Your task to perform on an android device: toggle notifications settings in the gmail app Image 0: 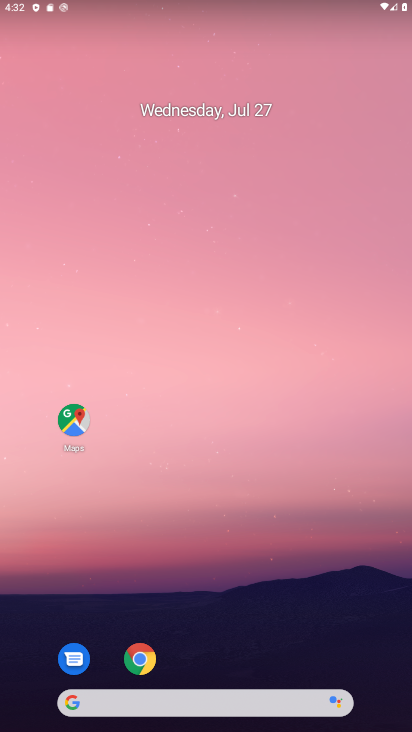
Step 0: press home button
Your task to perform on an android device: toggle notifications settings in the gmail app Image 1: 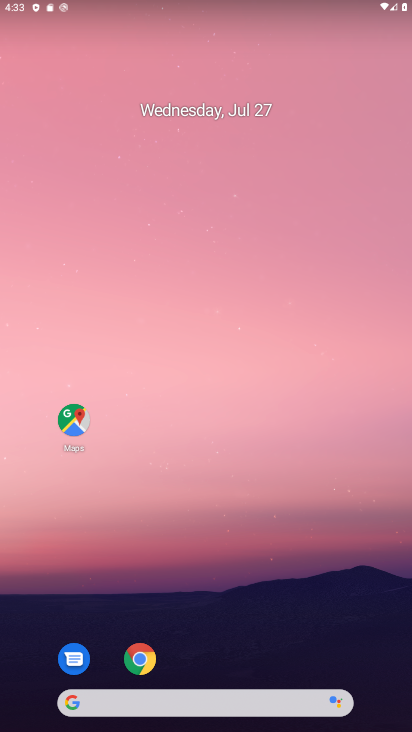
Step 1: drag from (295, 598) to (306, 151)
Your task to perform on an android device: toggle notifications settings in the gmail app Image 2: 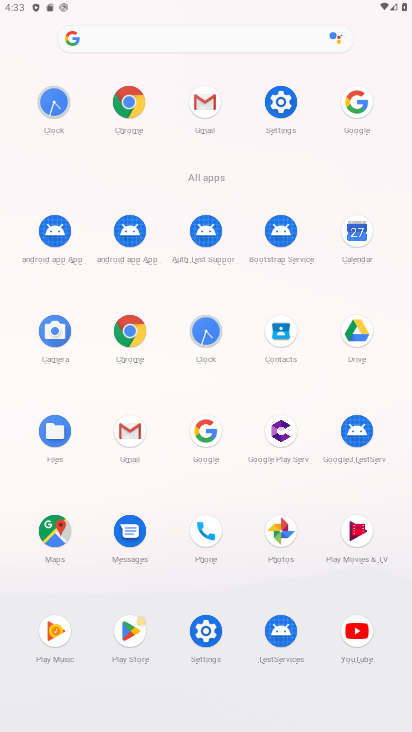
Step 2: click (121, 431)
Your task to perform on an android device: toggle notifications settings in the gmail app Image 3: 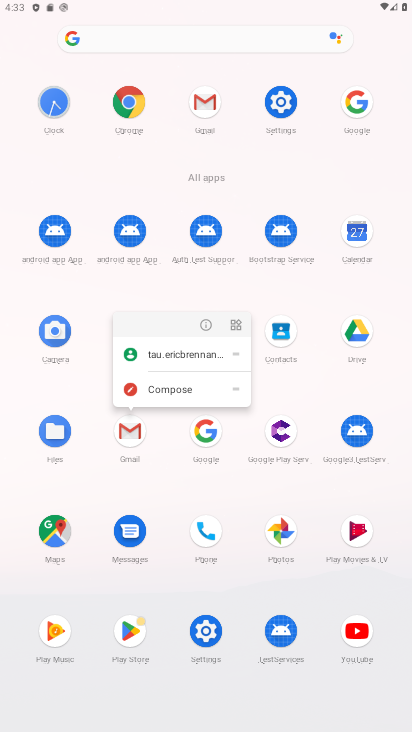
Step 3: click (203, 330)
Your task to perform on an android device: toggle notifications settings in the gmail app Image 4: 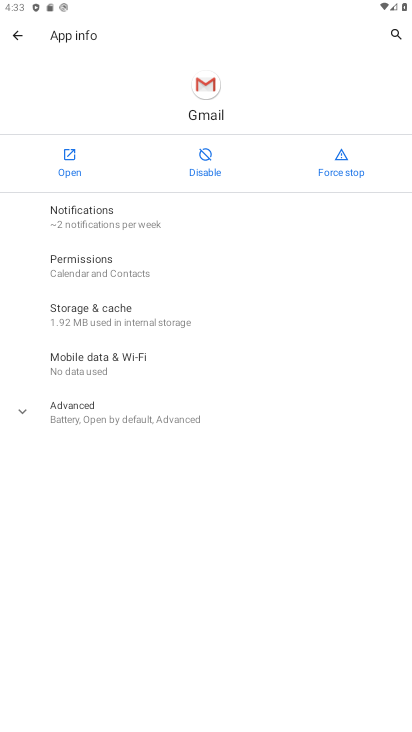
Step 4: click (59, 210)
Your task to perform on an android device: toggle notifications settings in the gmail app Image 5: 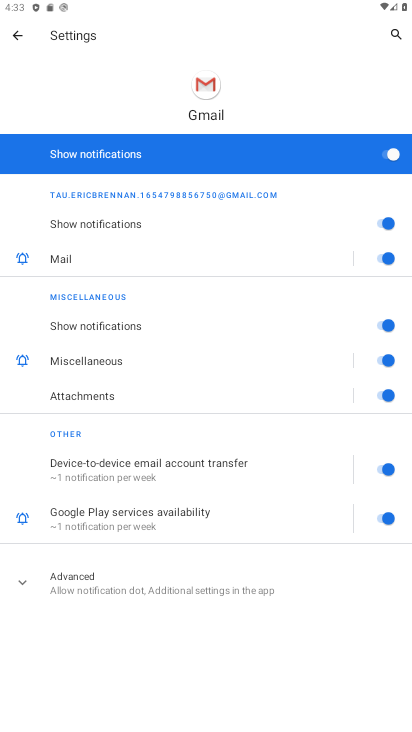
Step 5: click (94, 149)
Your task to perform on an android device: toggle notifications settings in the gmail app Image 6: 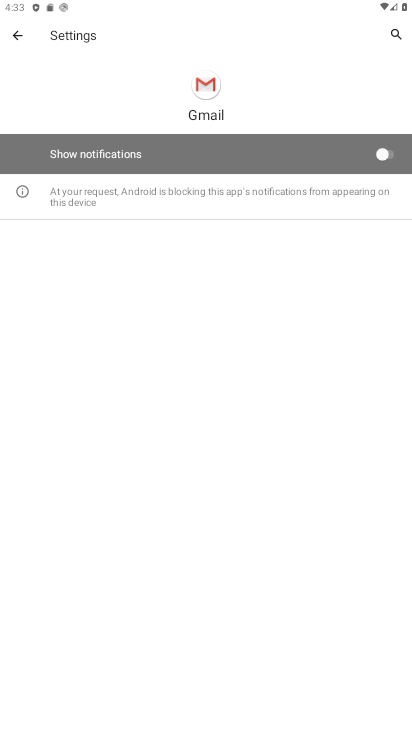
Step 6: task complete